Your task to perform on an android device: turn on priority inbox in the gmail app Image 0: 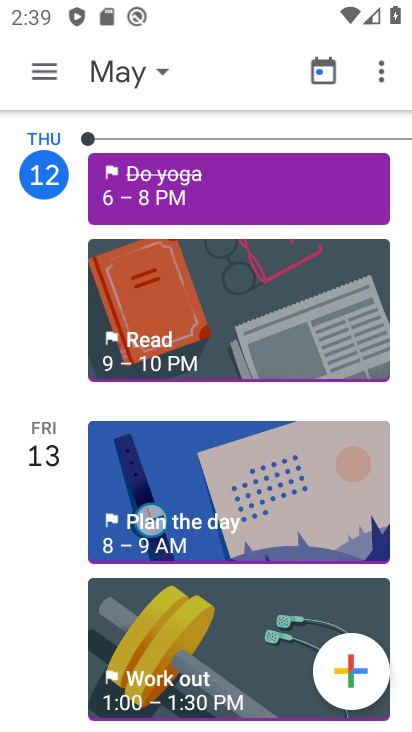
Step 0: press home button
Your task to perform on an android device: turn on priority inbox in the gmail app Image 1: 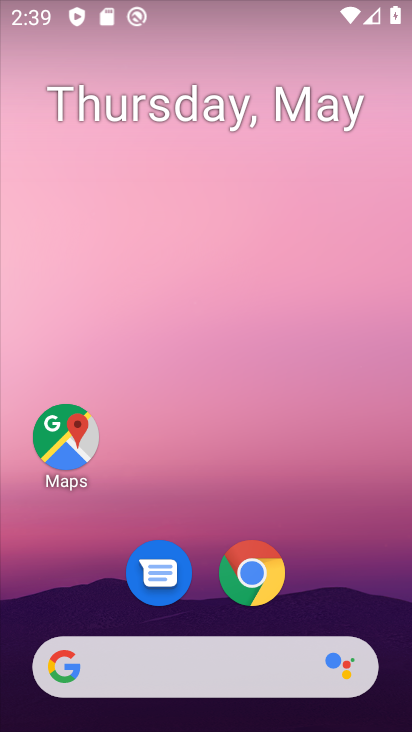
Step 1: drag from (303, 521) to (180, 35)
Your task to perform on an android device: turn on priority inbox in the gmail app Image 2: 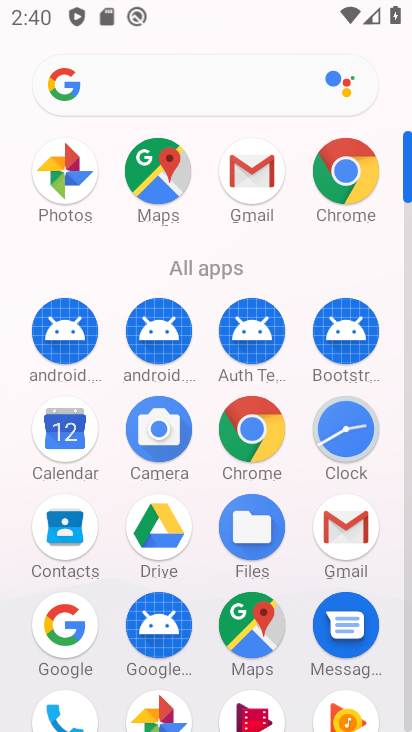
Step 2: click (240, 181)
Your task to perform on an android device: turn on priority inbox in the gmail app Image 3: 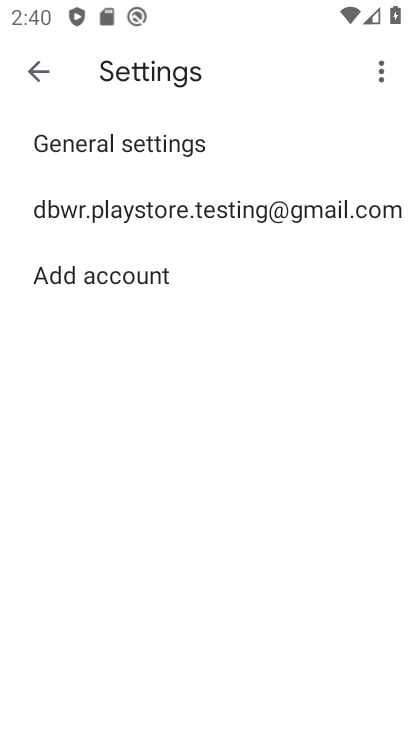
Step 3: click (105, 203)
Your task to perform on an android device: turn on priority inbox in the gmail app Image 4: 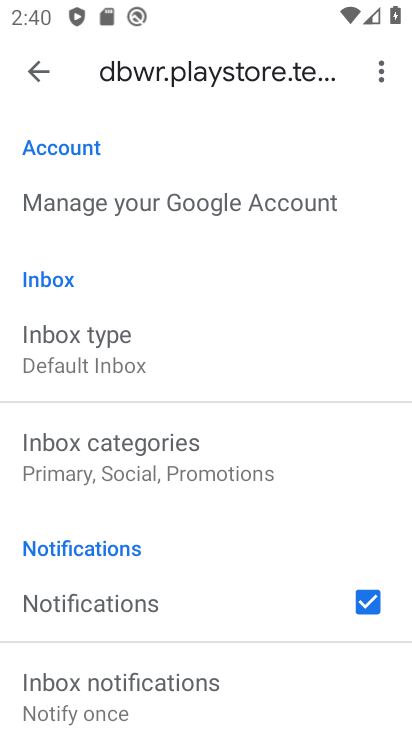
Step 4: click (87, 364)
Your task to perform on an android device: turn on priority inbox in the gmail app Image 5: 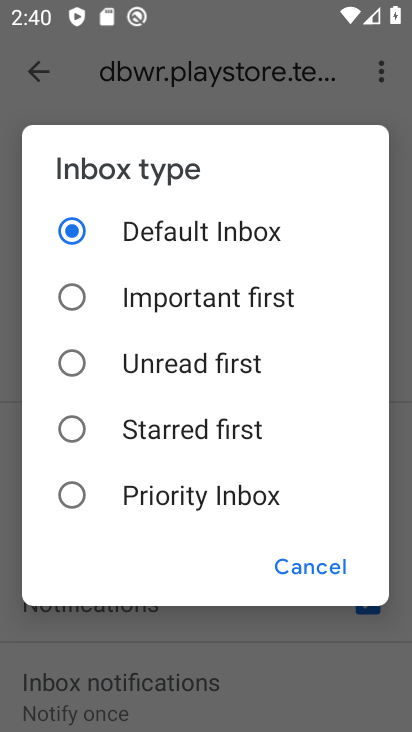
Step 5: click (71, 496)
Your task to perform on an android device: turn on priority inbox in the gmail app Image 6: 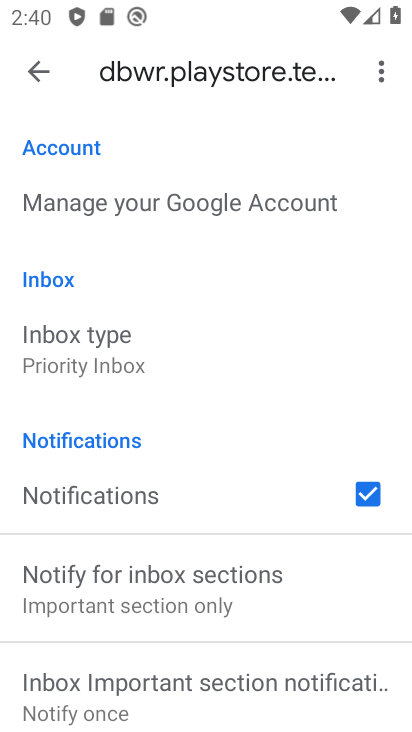
Step 6: task complete